Your task to perform on an android device: Empty the shopping cart on target.com. Add "usb-c to usb-b" to the cart on target.com, then select checkout. Image 0: 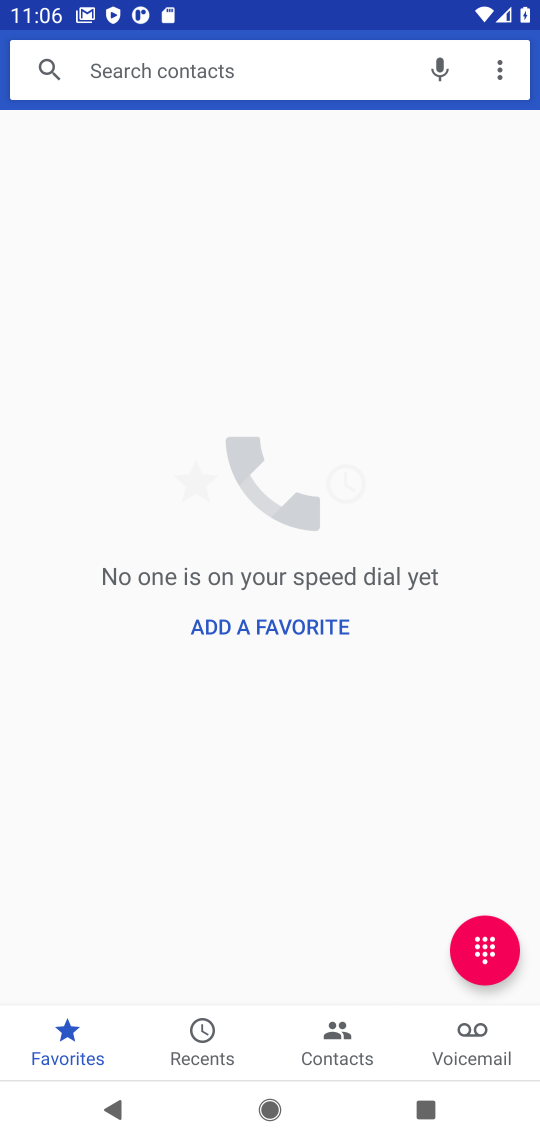
Step 0: task complete